Your task to perform on an android device: Search for "acer predator" on target, select the first entry, and add it to the cart. Image 0: 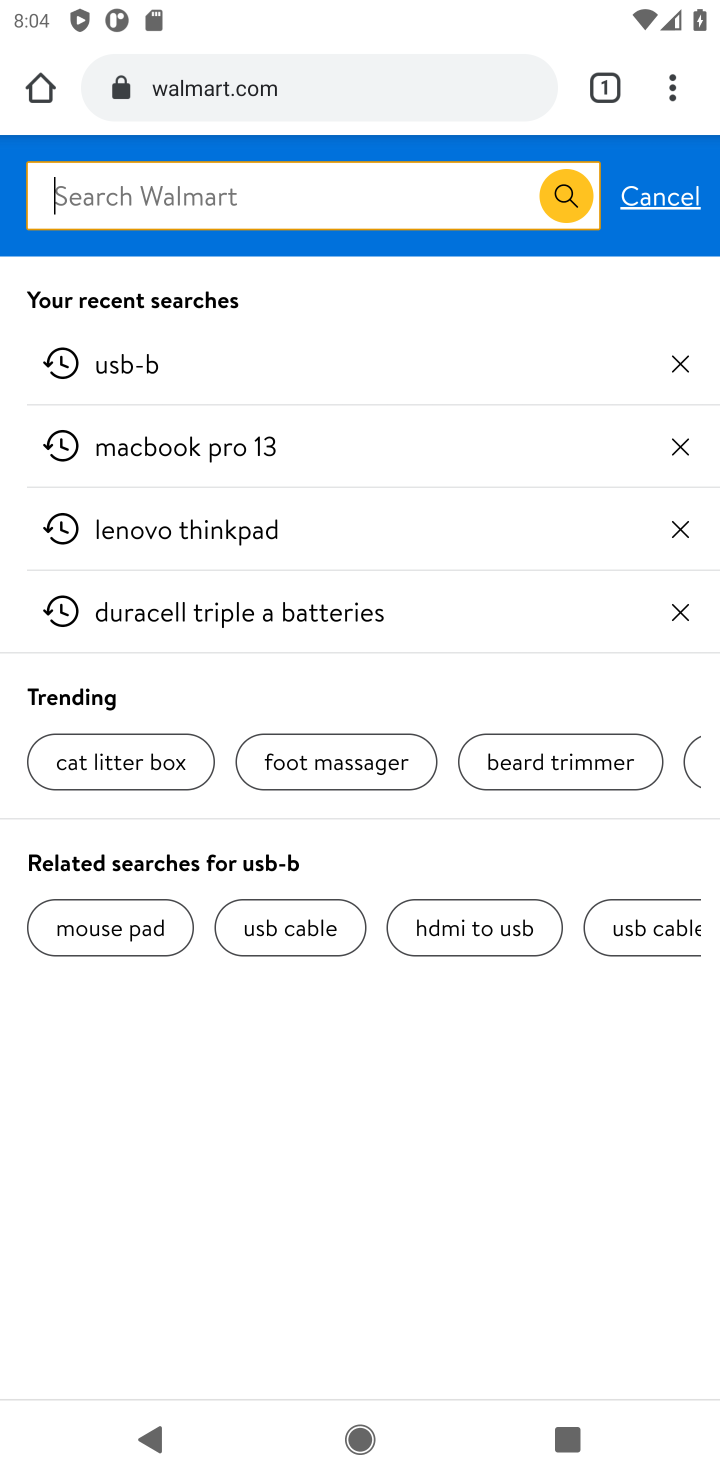
Step 0: type "acer predator"
Your task to perform on an android device: Search for "acer predator" on target, select the first entry, and add it to the cart. Image 1: 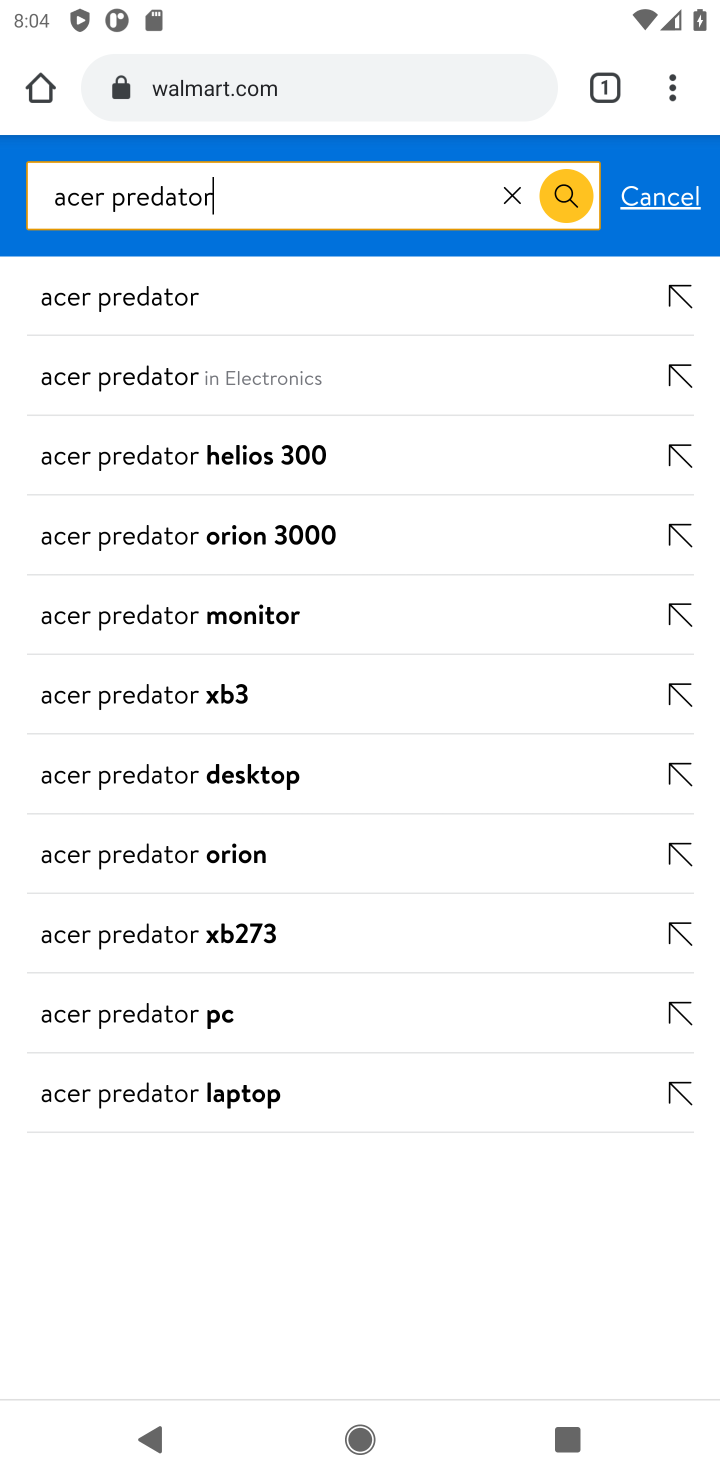
Step 1: click (157, 281)
Your task to perform on an android device: Search for "acer predator" on target, select the first entry, and add it to the cart. Image 2: 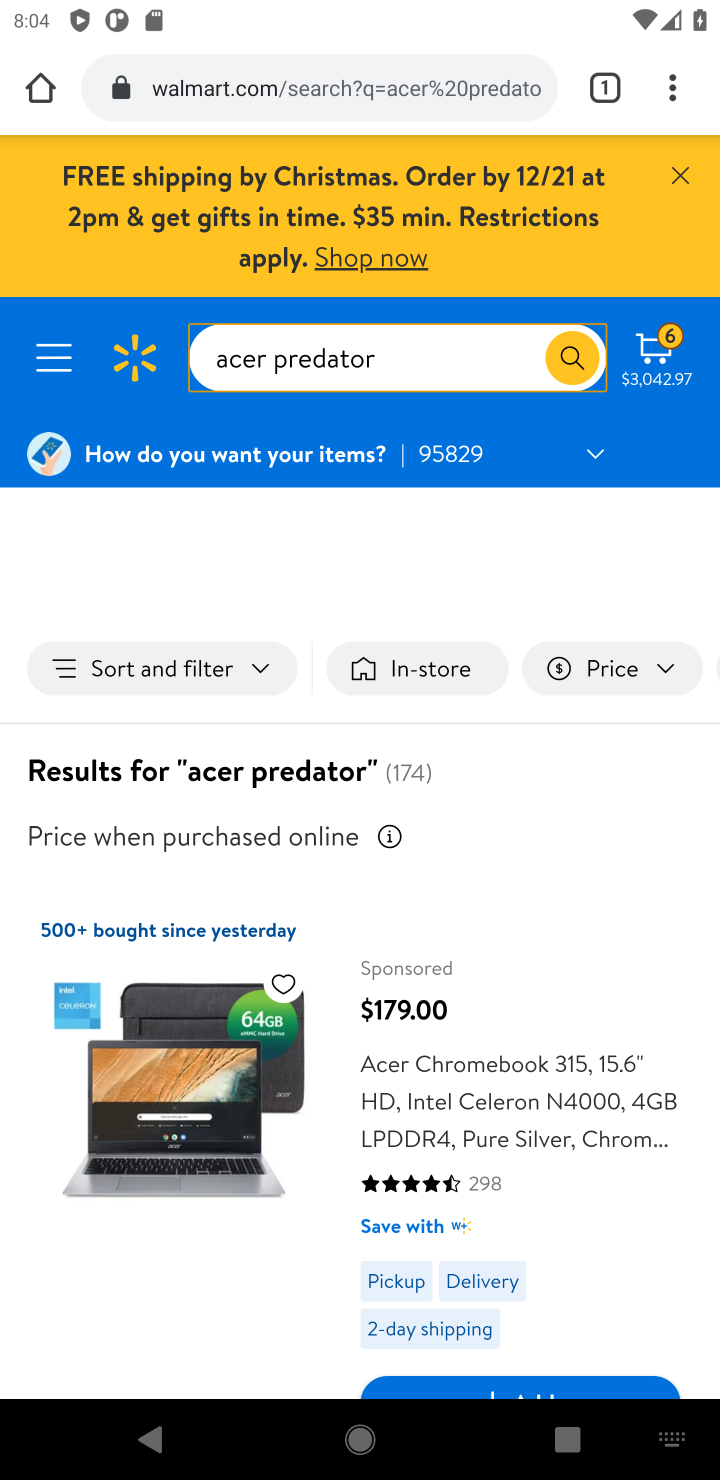
Step 2: click (577, 1375)
Your task to perform on an android device: Search for "acer predator" on target, select the first entry, and add it to the cart. Image 3: 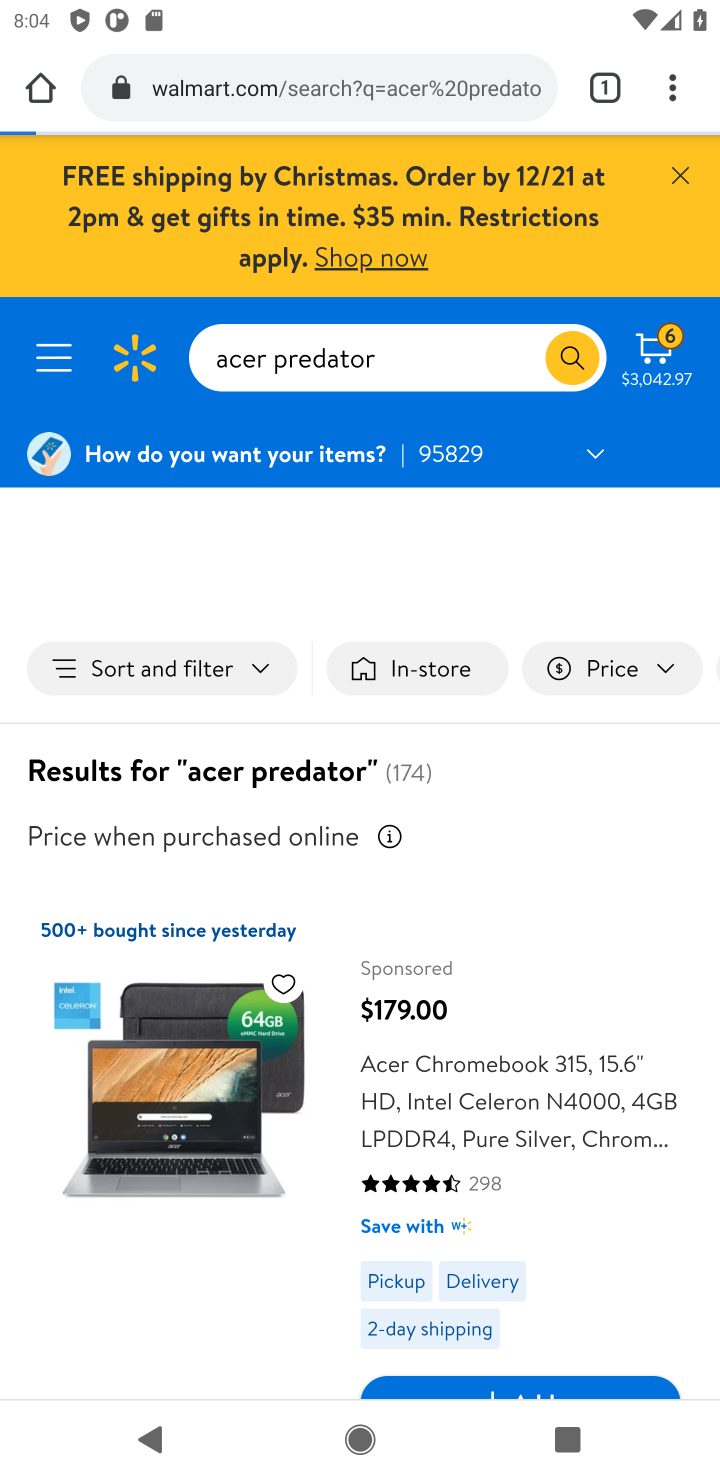
Step 3: task complete